Your task to perform on an android device: change alarm snooze length Image 0: 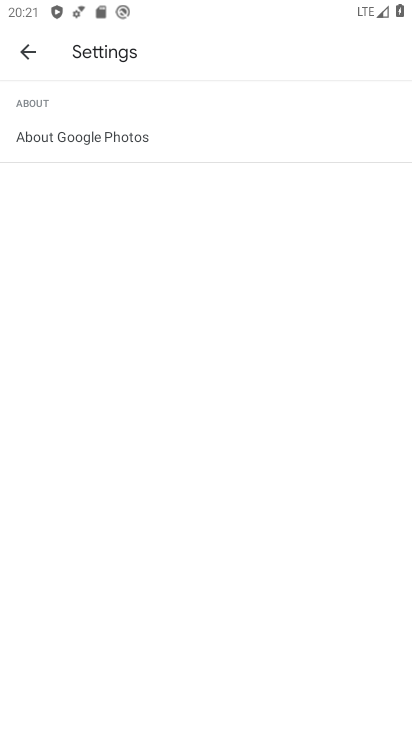
Step 0: press home button
Your task to perform on an android device: change alarm snooze length Image 1: 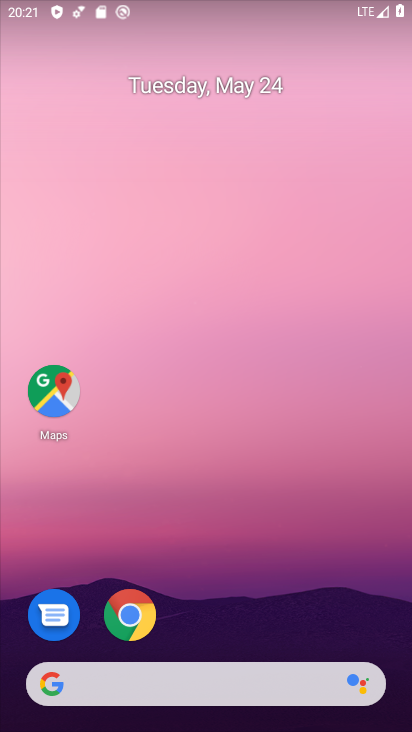
Step 1: drag from (251, 509) to (281, 155)
Your task to perform on an android device: change alarm snooze length Image 2: 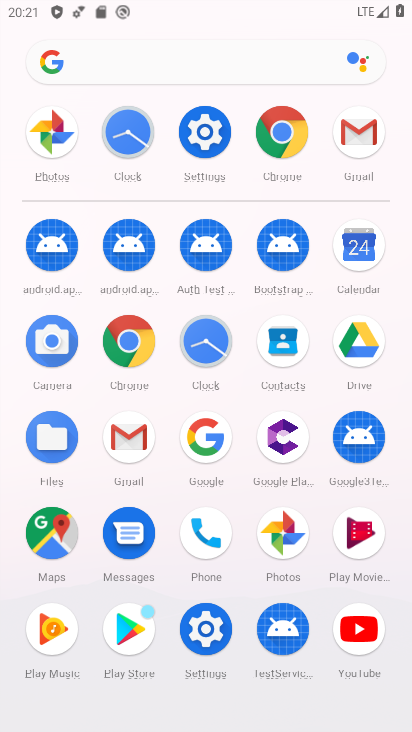
Step 2: click (205, 323)
Your task to perform on an android device: change alarm snooze length Image 3: 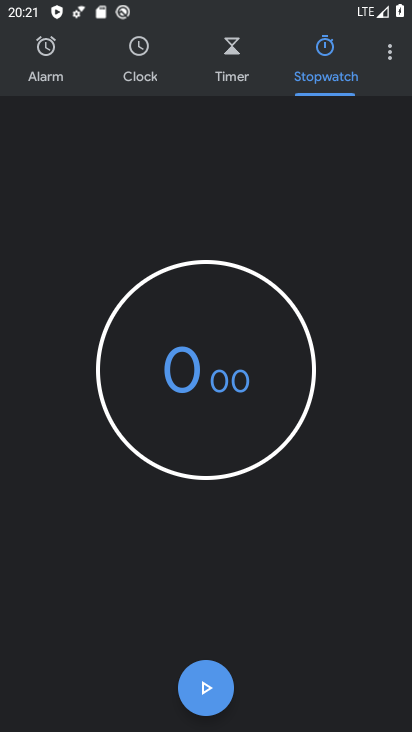
Step 3: click (390, 49)
Your task to perform on an android device: change alarm snooze length Image 4: 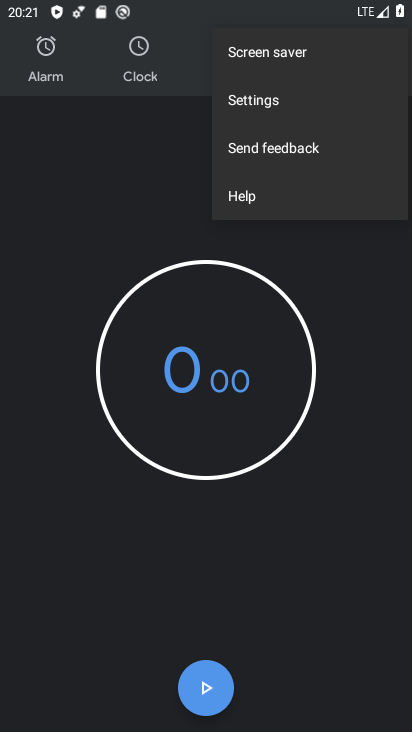
Step 4: click (289, 110)
Your task to perform on an android device: change alarm snooze length Image 5: 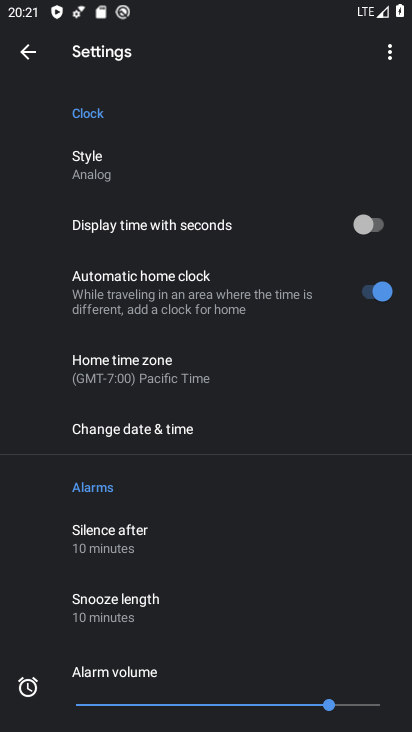
Step 5: click (177, 593)
Your task to perform on an android device: change alarm snooze length Image 6: 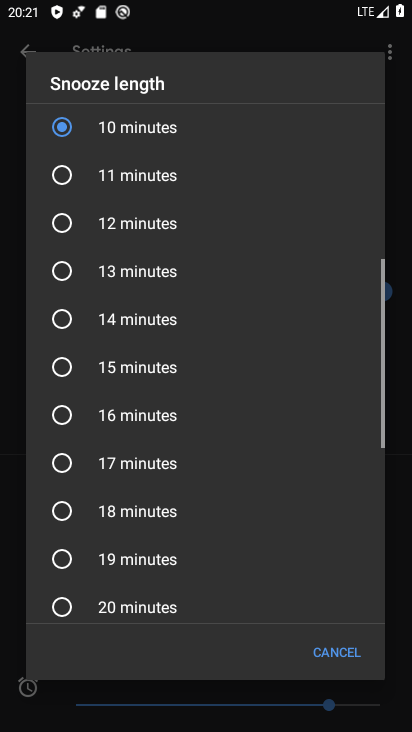
Step 6: click (132, 476)
Your task to perform on an android device: change alarm snooze length Image 7: 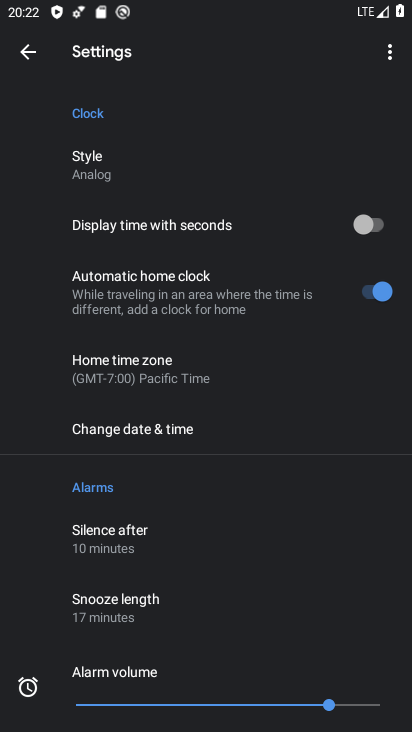
Step 7: task complete